Your task to perform on an android device: What's the weather going to be this weekend? Image 0: 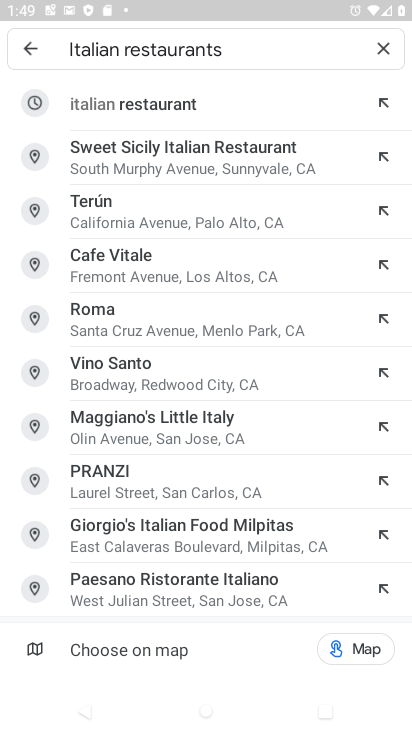
Step 0: press home button
Your task to perform on an android device: What's the weather going to be this weekend? Image 1: 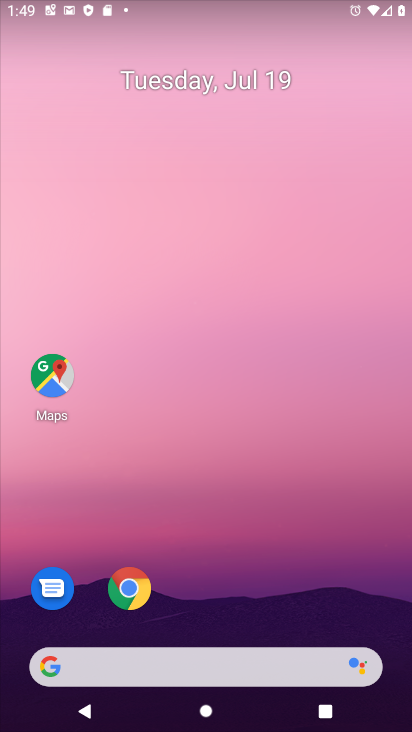
Step 1: drag from (354, 615) to (24, 108)
Your task to perform on an android device: What's the weather going to be this weekend? Image 2: 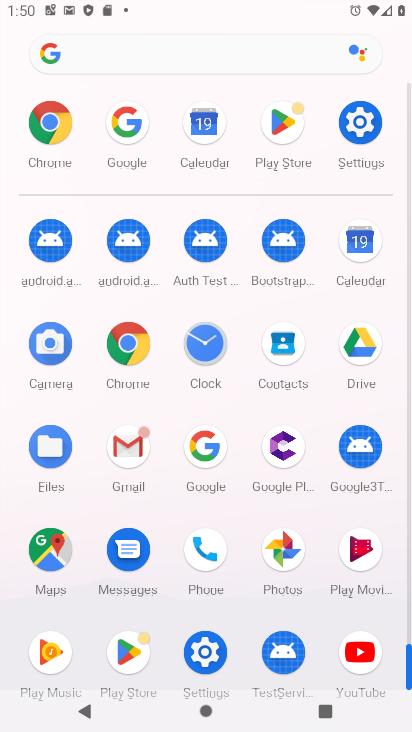
Step 2: click (208, 448)
Your task to perform on an android device: What's the weather going to be this weekend? Image 3: 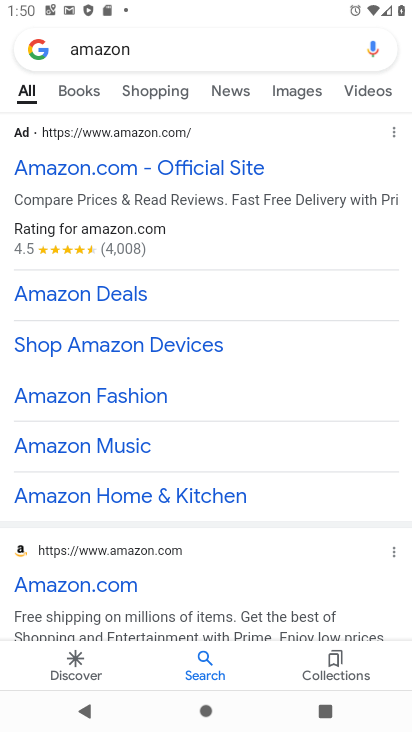
Step 3: press back button
Your task to perform on an android device: What's the weather going to be this weekend? Image 4: 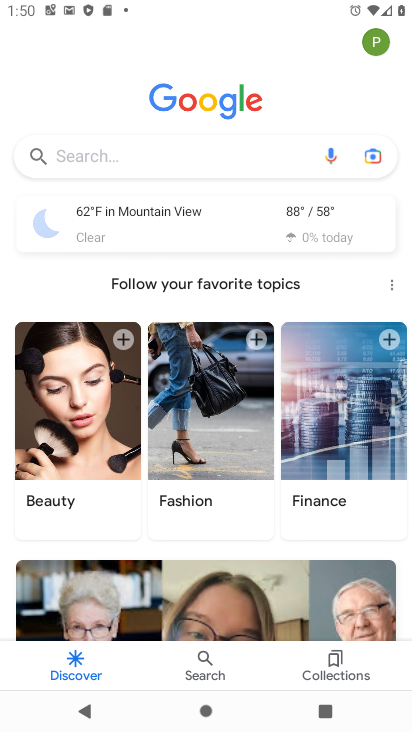
Step 4: click (116, 158)
Your task to perform on an android device: What's the weather going to be this weekend? Image 5: 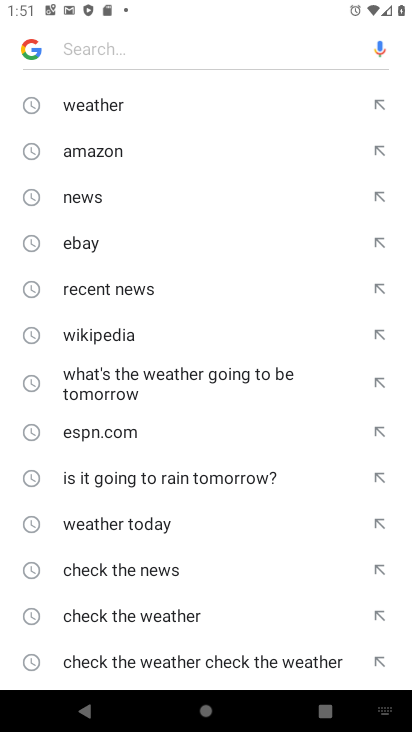
Step 5: drag from (192, 665) to (190, 299)
Your task to perform on an android device: What's the weather going to be this weekend? Image 6: 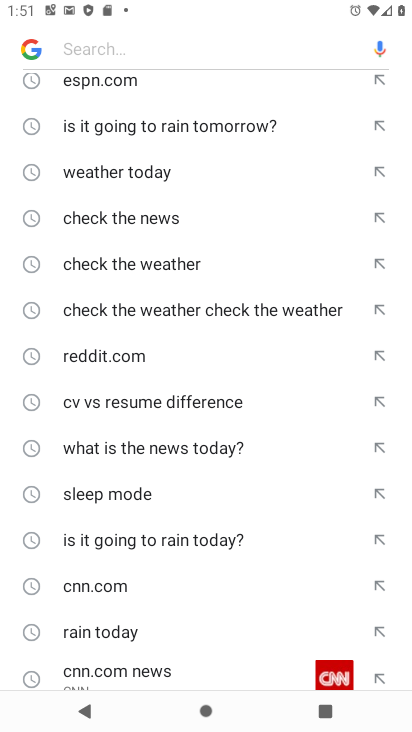
Step 6: drag from (175, 702) to (211, 156)
Your task to perform on an android device: What's the weather going to be this weekend? Image 7: 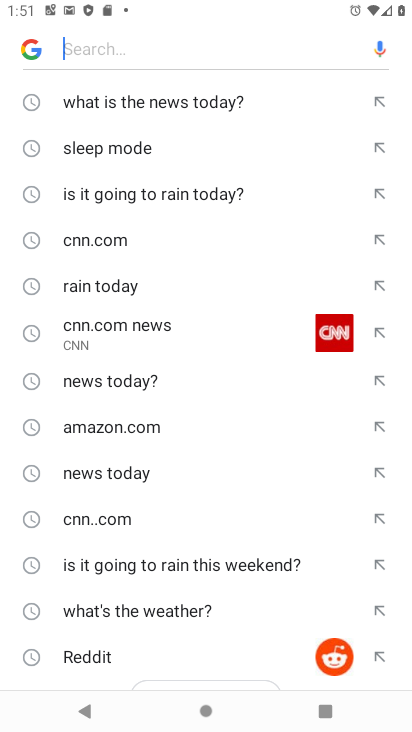
Step 7: type "What's the weather going to be this weekend?"
Your task to perform on an android device: What's the weather going to be this weekend? Image 8: 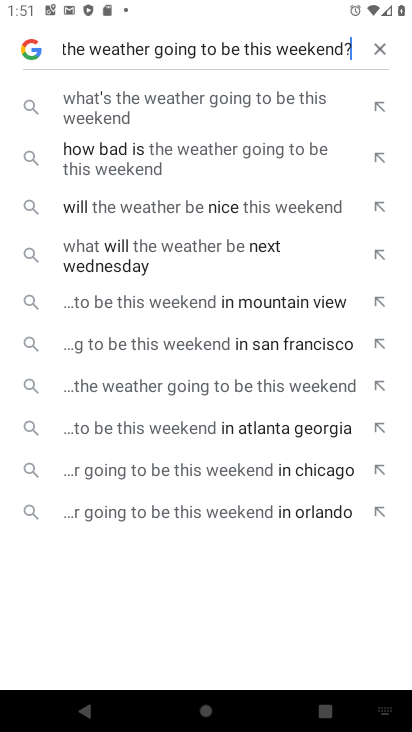
Step 8: click (192, 108)
Your task to perform on an android device: What's the weather going to be this weekend? Image 9: 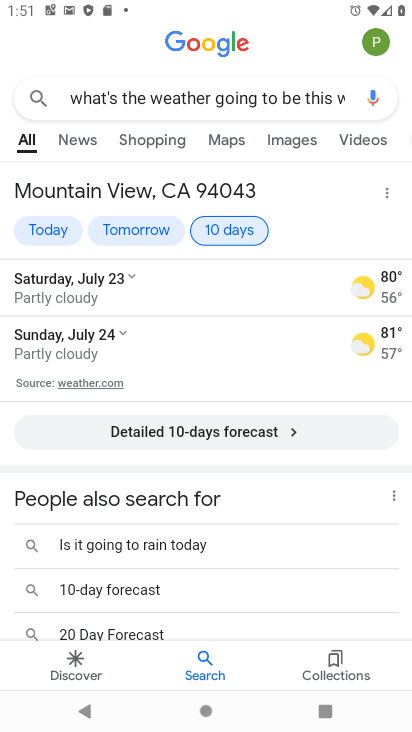
Step 9: task complete